Your task to perform on an android device: turn on improve location accuracy Image 0: 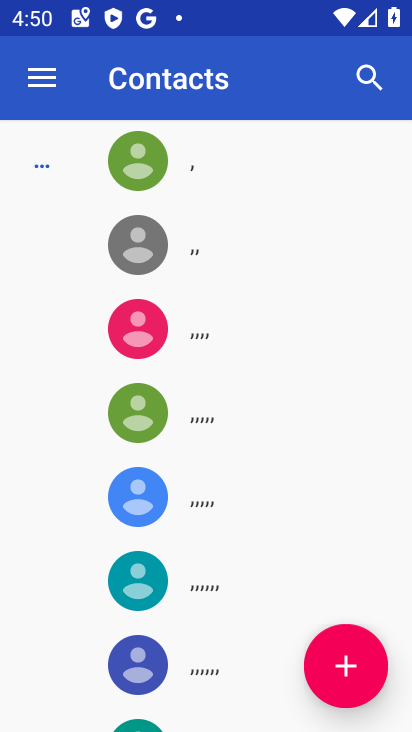
Step 0: press back button
Your task to perform on an android device: turn on improve location accuracy Image 1: 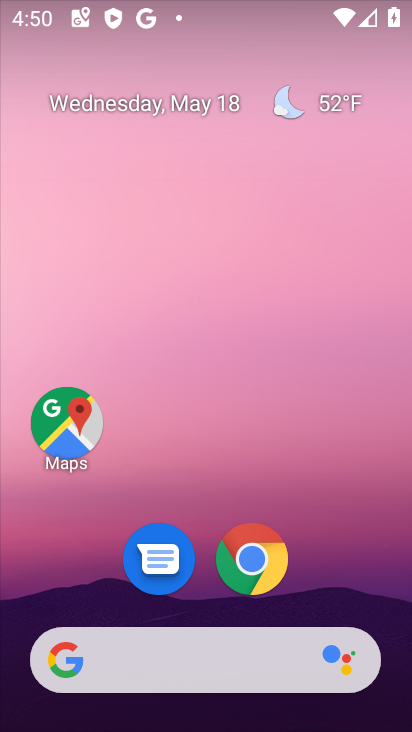
Step 1: drag from (155, 555) to (260, 48)
Your task to perform on an android device: turn on improve location accuracy Image 2: 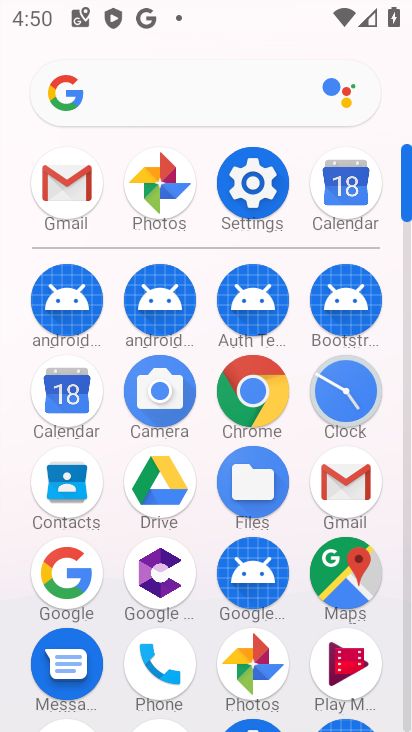
Step 2: click (246, 187)
Your task to perform on an android device: turn on improve location accuracy Image 3: 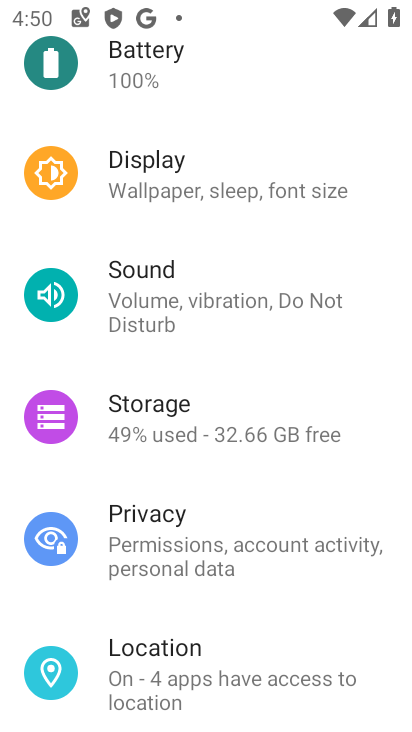
Step 3: click (179, 660)
Your task to perform on an android device: turn on improve location accuracy Image 4: 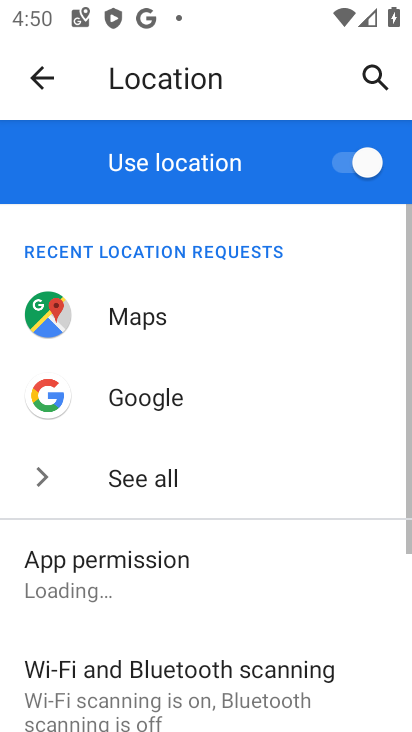
Step 4: drag from (189, 649) to (258, 121)
Your task to perform on an android device: turn on improve location accuracy Image 5: 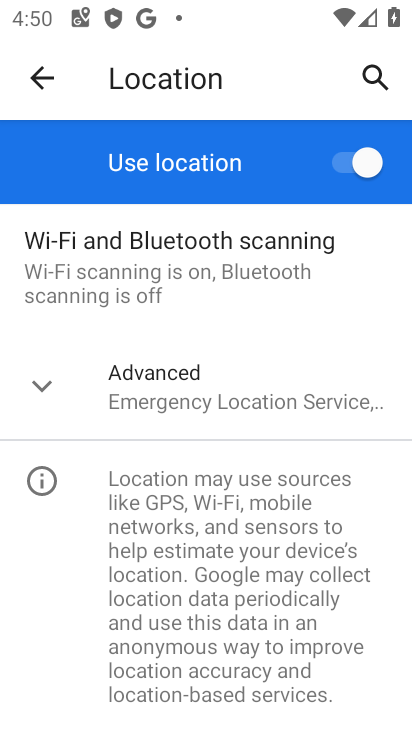
Step 5: click (182, 385)
Your task to perform on an android device: turn on improve location accuracy Image 6: 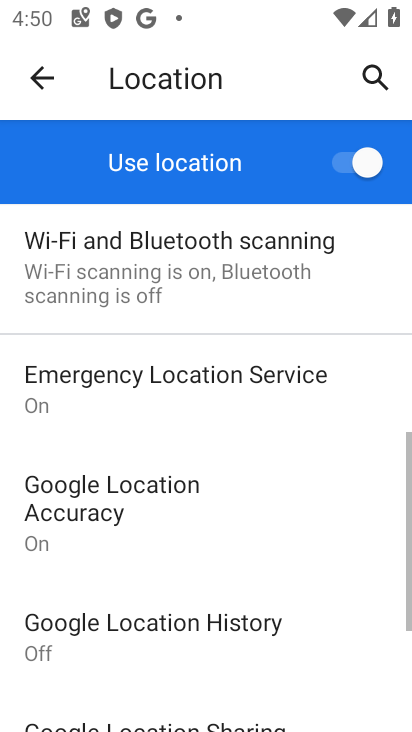
Step 6: click (83, 531)
Your task to perform on an android device: turn on improve location accuracy Image 7: 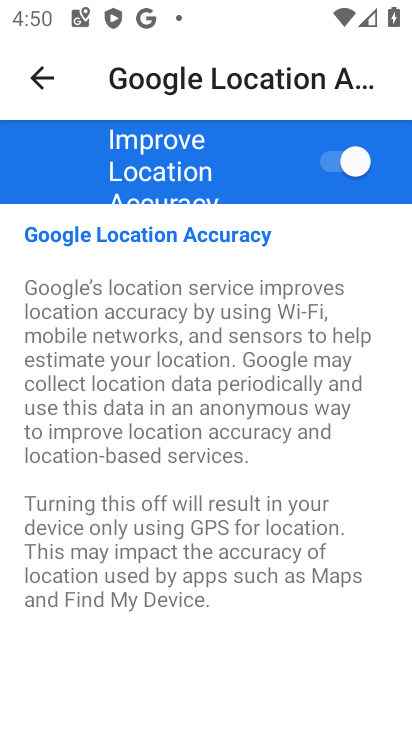
Step 7: task complete